Your task to perform on an android device: change the clock display to digital Image 0: 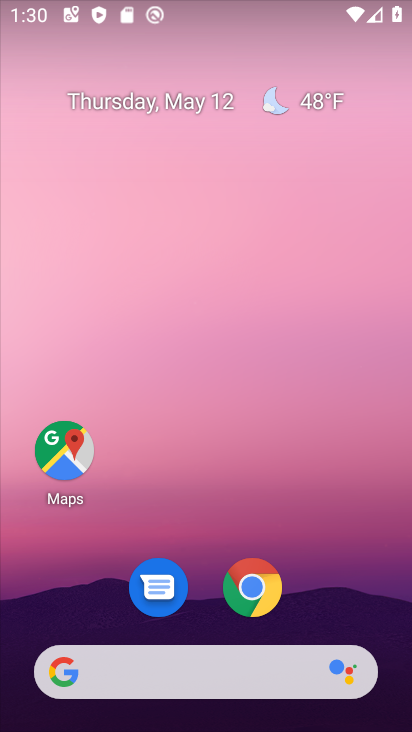
Step 0: drag from (188, 592) to (177, 188)
Your task to perform on an android device: change the clock display to digital Image 1: 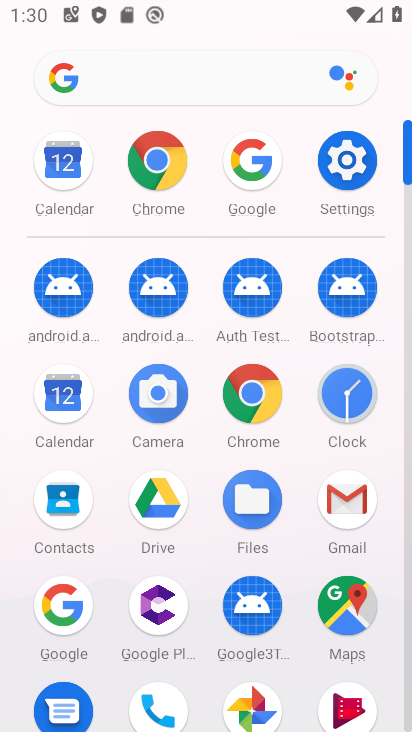
Step 1: click (346, 403)
Your task to perform on an android device: change the clock display to digital Image 2: 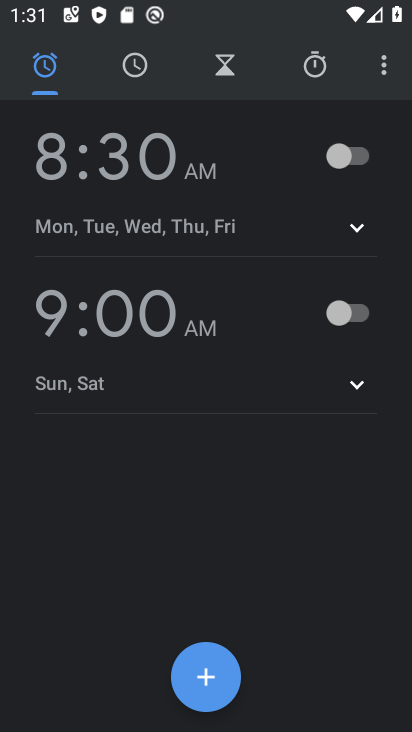
Step 2: click (382, 68)
Your task to perform on an android device: change the clock display to digital Image 3: 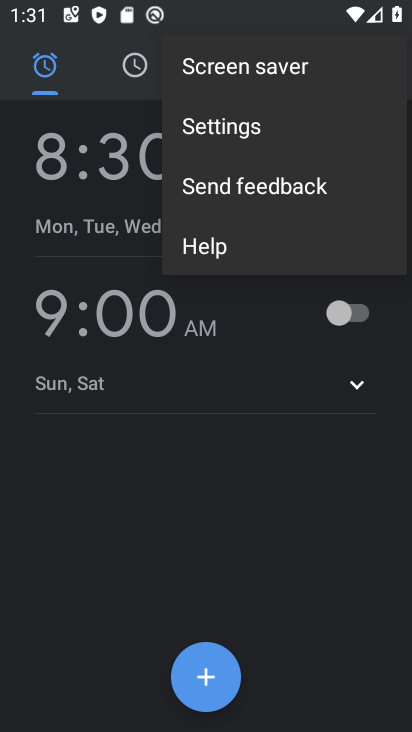
Step 3: click (263, 128)
Your task to perform on an android device: change the clock display to digital Image 4: 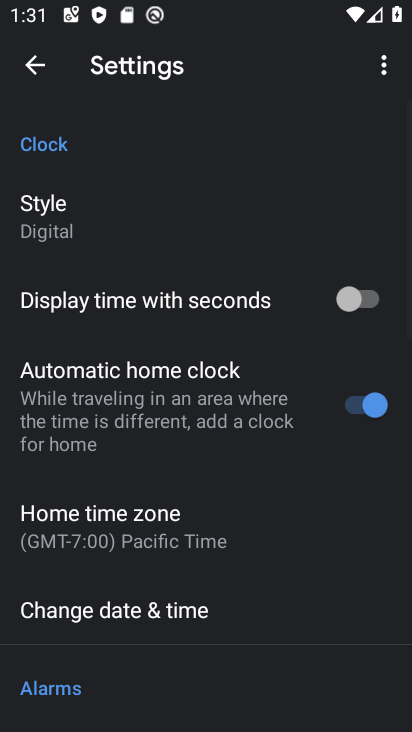
Step 4: click (132, 201)
Your task to perform on an android device: change the clock display to digital Image 5: 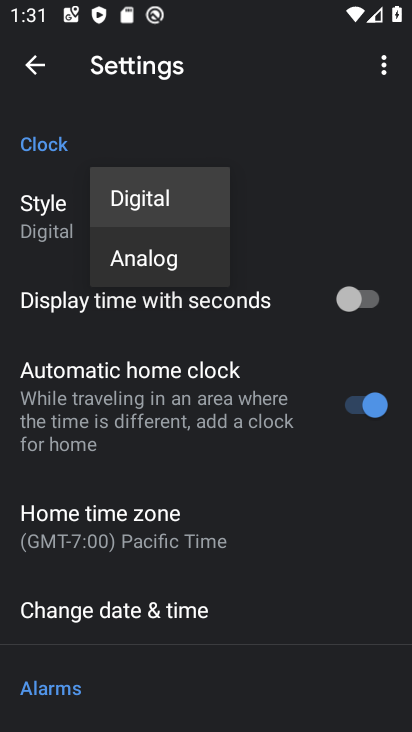
Step 5: task complete